Your task to perform on an android device: Search for pizza restaurants on Maps Image 0: 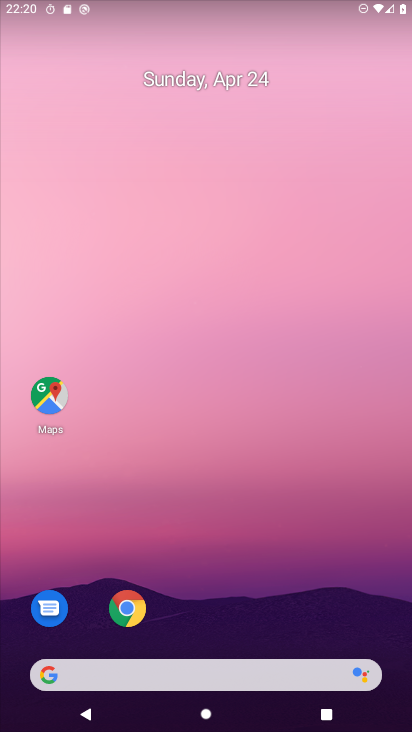
Step 0: click (47, 397)
Your task to perform on an android device: Search for pizza restaurants on Maps Image 1: 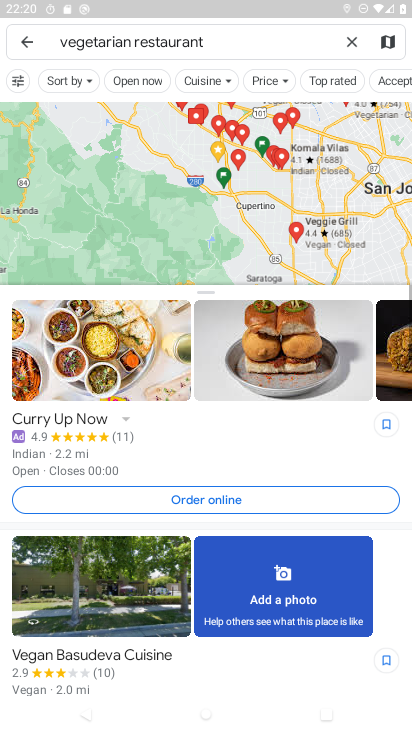
Step 1: click (352, 40)
Your task to perform on an android device: Search for pizza restaurants on Maps Image 2: 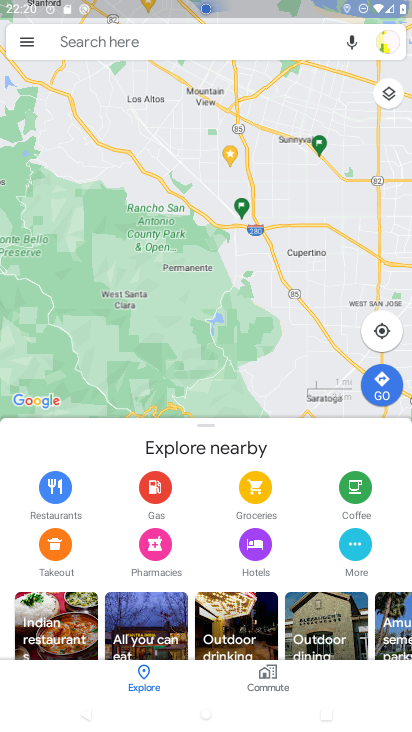
Step 2: click (320, 39)
Your task to perform on an android device: Search for pizza restaurants on Maps Image 3: 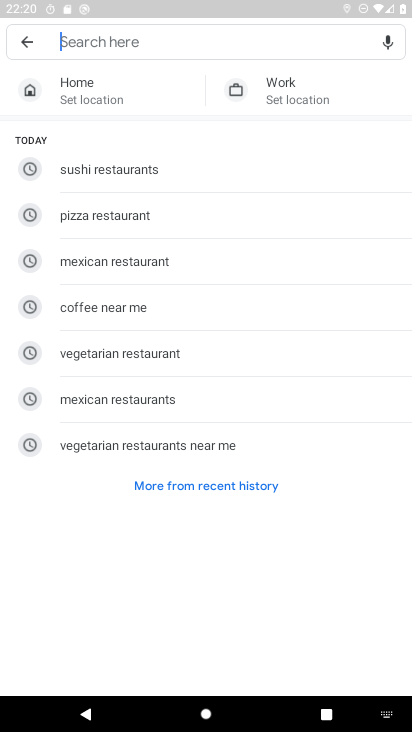
Step 3: click (156, 211)
Your task to perform on an android device: Search for pizza restaurants on Maps Image 4: 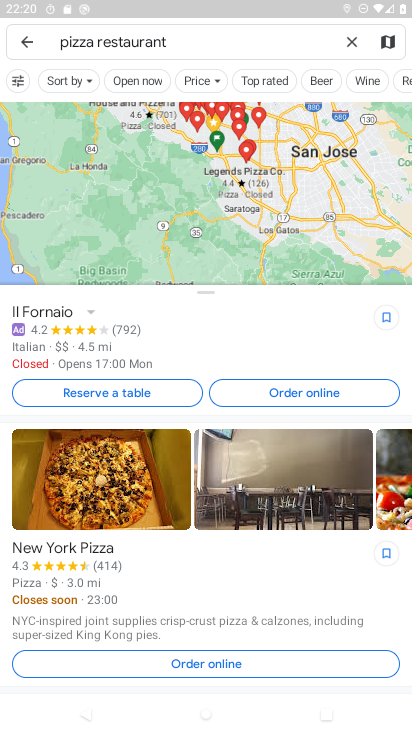
Step 4: task complete